Your task to perform on an android device: View the shopping cart on amazon.com. Add "acer predator" to the cart on amazon.com Image 0: 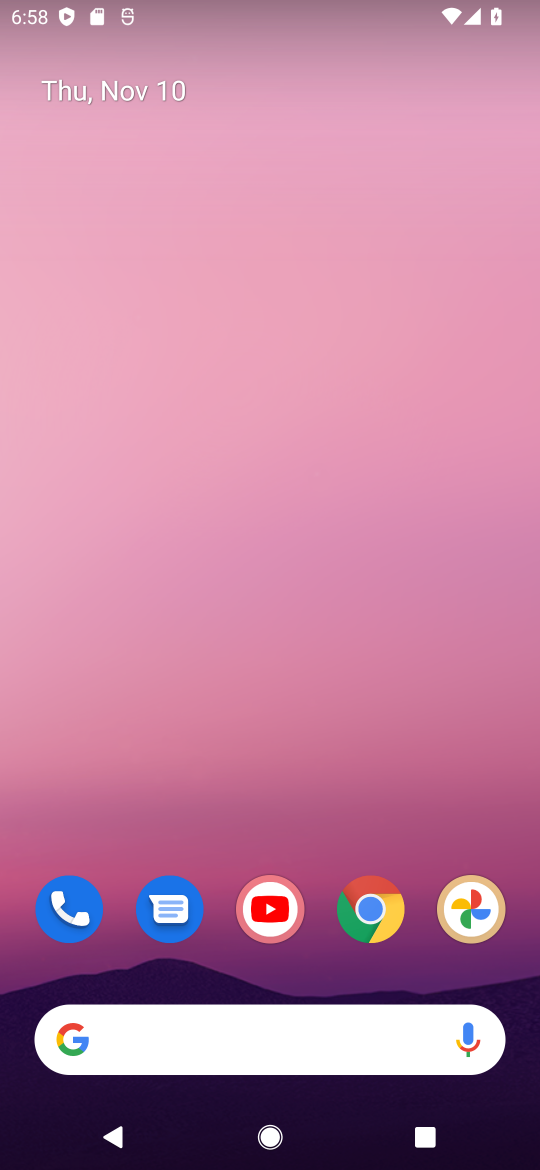
Step 0: drag from (310, 1037) to (353, 396)
Your task to perform on an android device: View the shopping cart on amazon.com. Add "acer predator" to the cart on amazon.com Image 1: 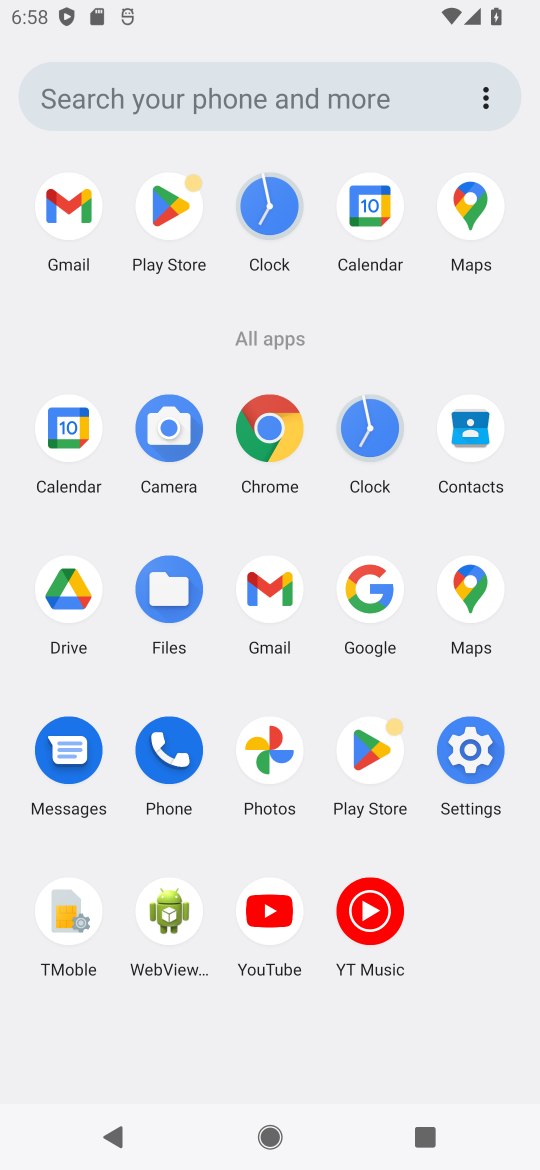
Step 1: click (357, 579)
Your task to perform on an android device: View the shopping cart on amazon.com. Add "acer predator" to the cart on amazon.com Image 2: 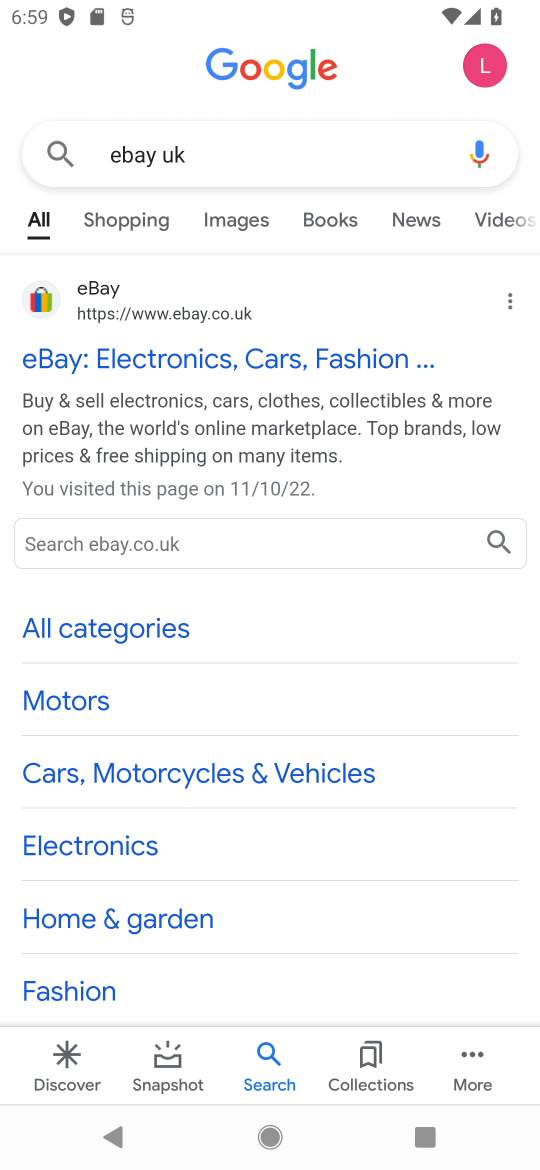
Step 2: click (211, 158)
Your task to perform on an android device: View the shopping cart on amazon.com. Add "acer predator" to the cart on amazon.com Image 3: 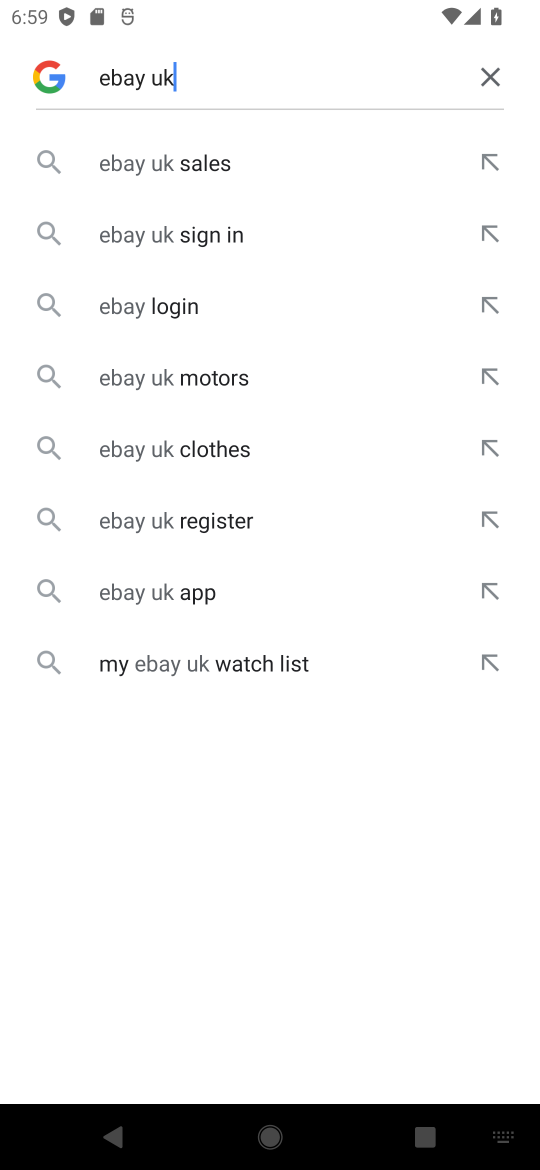
Step 3: click (492, 71)
Your task to perform on an android device: View the shopping cart on amazon.com. Add "acer predator" to the cart on amazon.com Image 4: 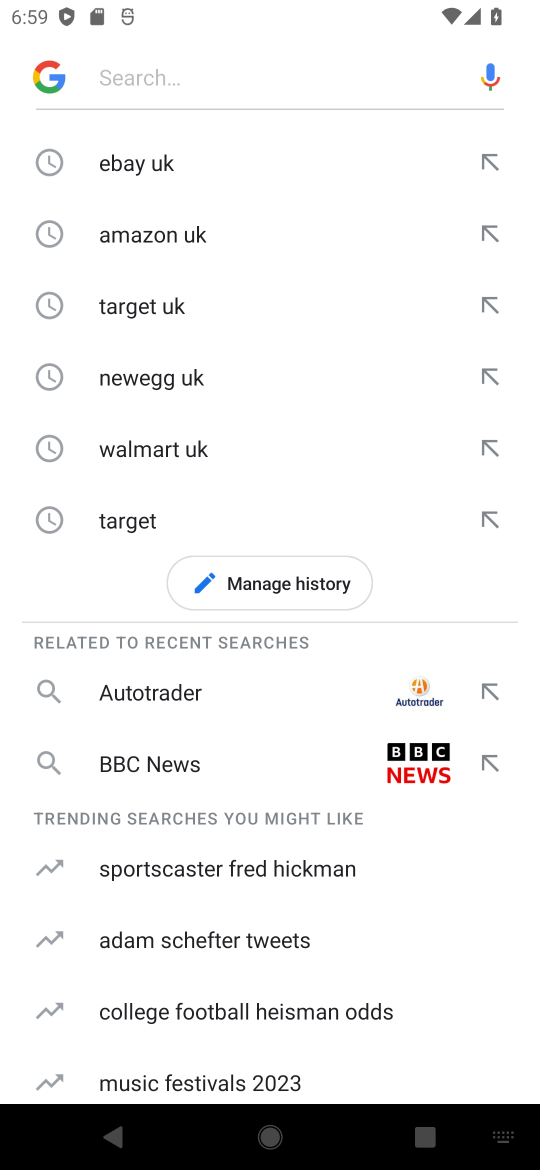
Step 4: click (162, 75)
Your task to perform on an android device: View the shopping cart on amazon.com. Add "acer predator" to the cart on amazon.com Image 5: 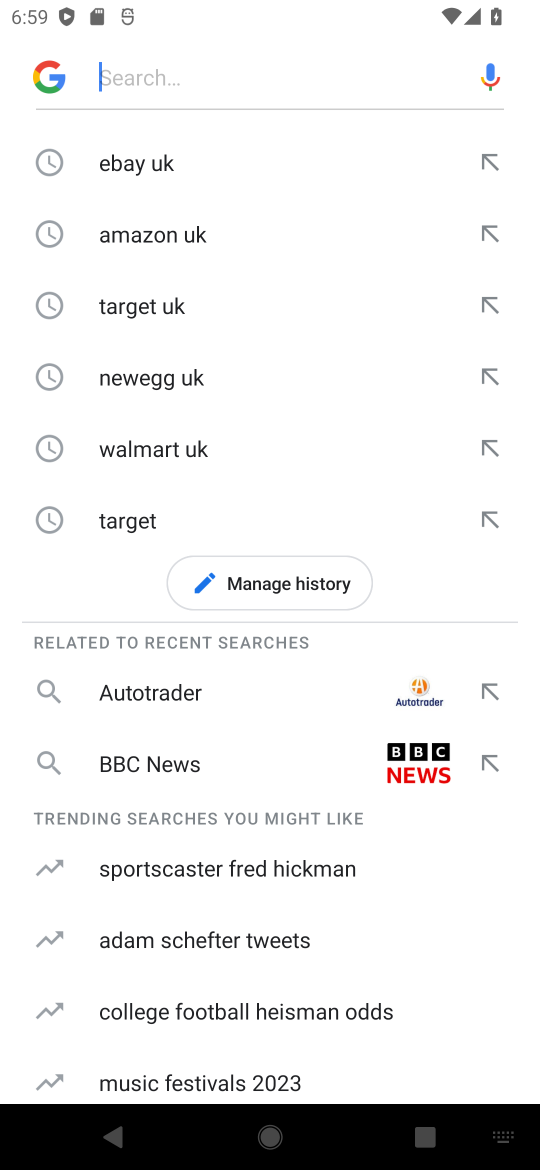
Step 5: type "amazon "
Your task to perform on an android device: View the shopping cart on amazon.com. Add "acer predator" to the cart on amazon.com Image 6: 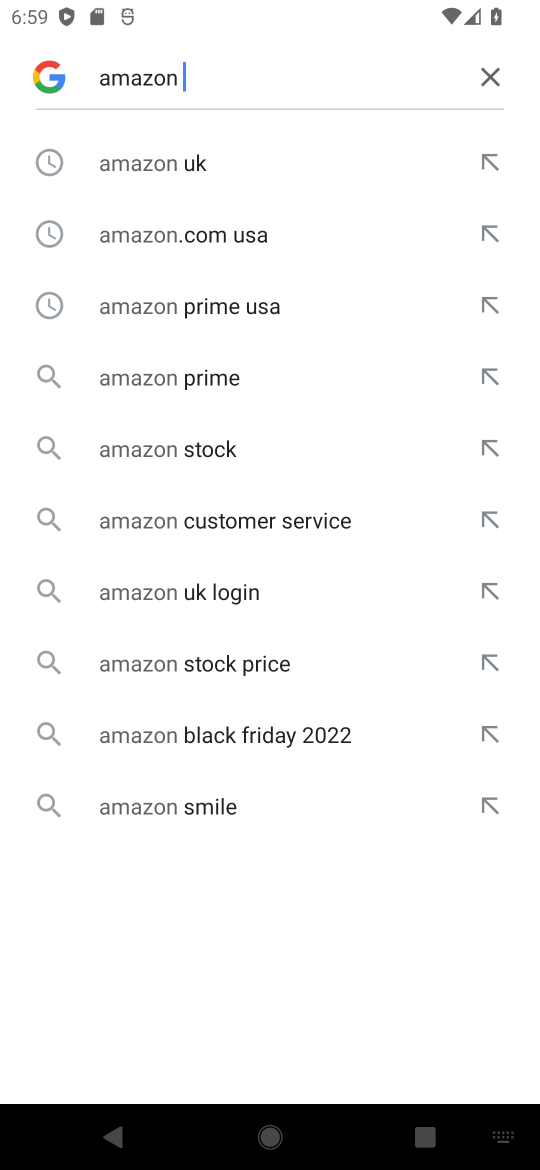
Step 6: click (188, 167)
Your task to perform on an android device: View the shopping cart on amazon.com. Add "acer predator" to the cart on amazon.com Image 7: 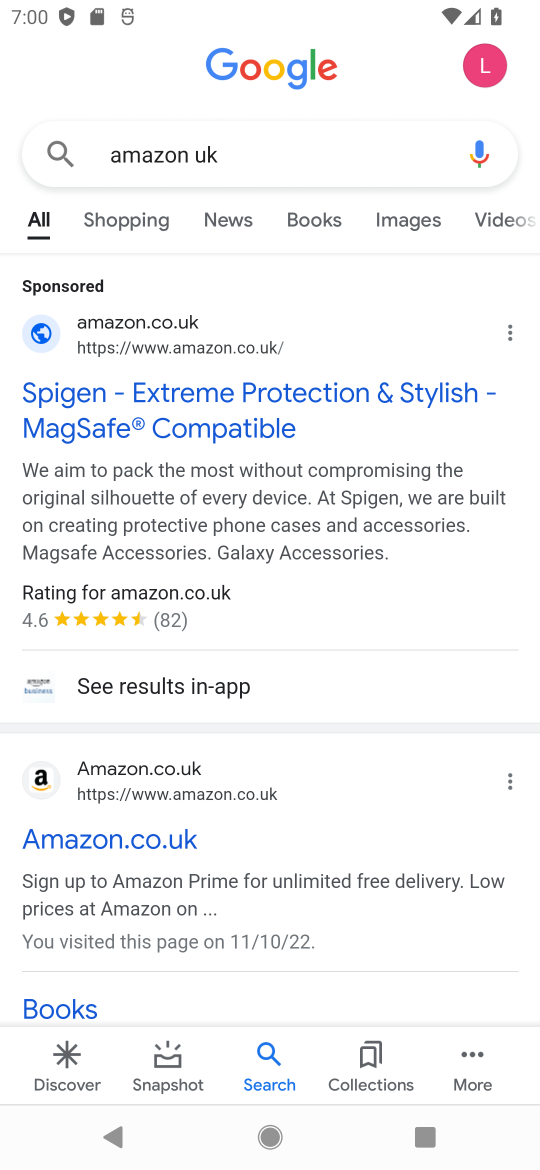
Step 7: click (43, 781)
Your task to perform on an android device: View the shopping cart on amazon.com. Add "acer predator" to the cart on amazon.com Image 8: 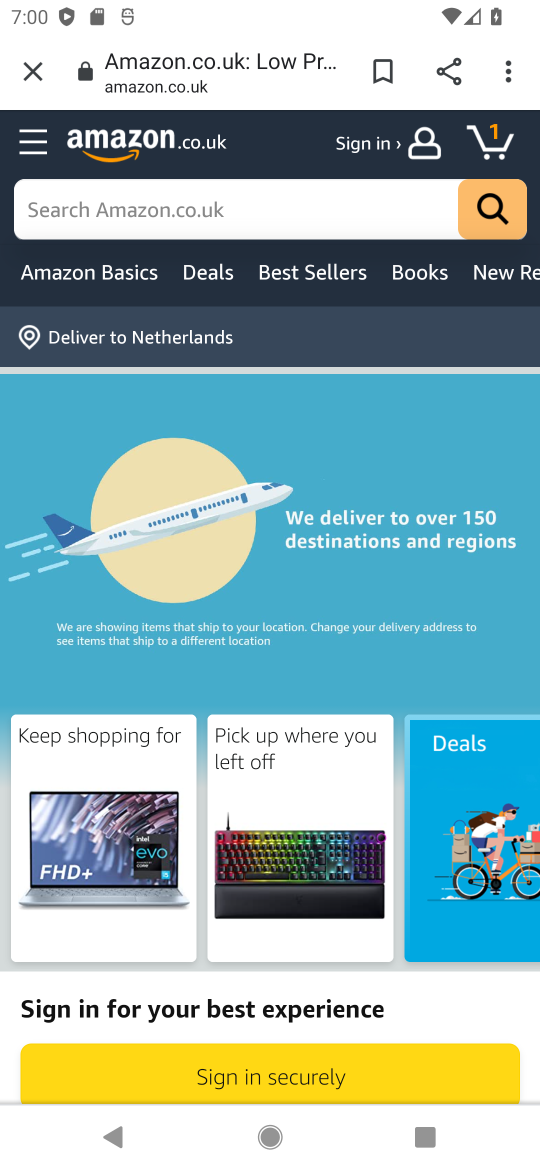
Step 8: click (238, 196)
Your task to perform on an android device: View the shopping cart on amazon.com. Add "acer predator" to the cart on amazon.com Image 9: 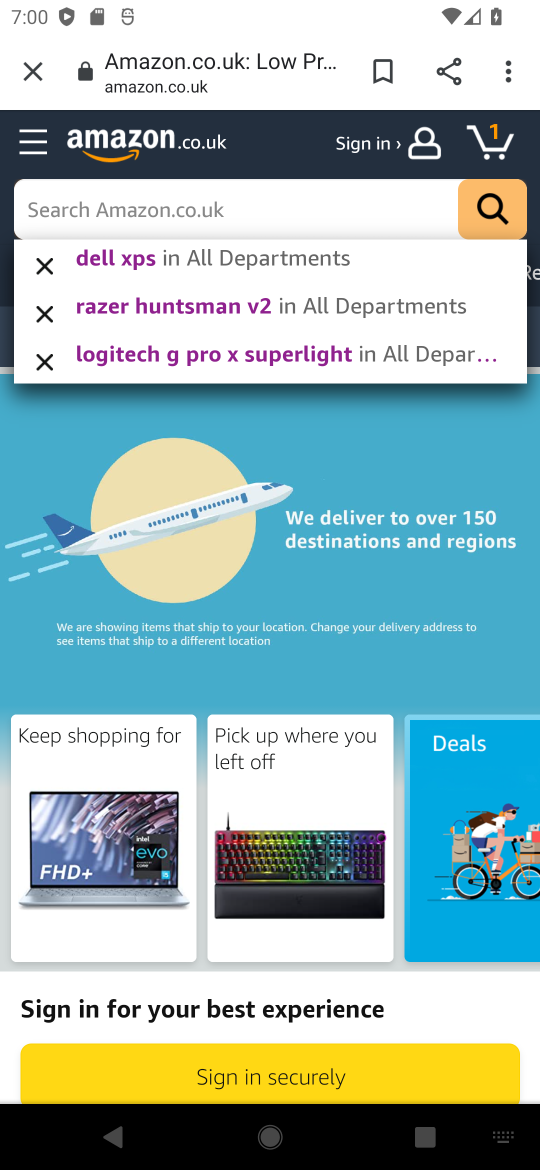
Step 9: type "acer predator" "
Your task to perform on an android device: View the shopping cart on amazon.com. Add "acer predator" to the cart on amazon.com Image 10: 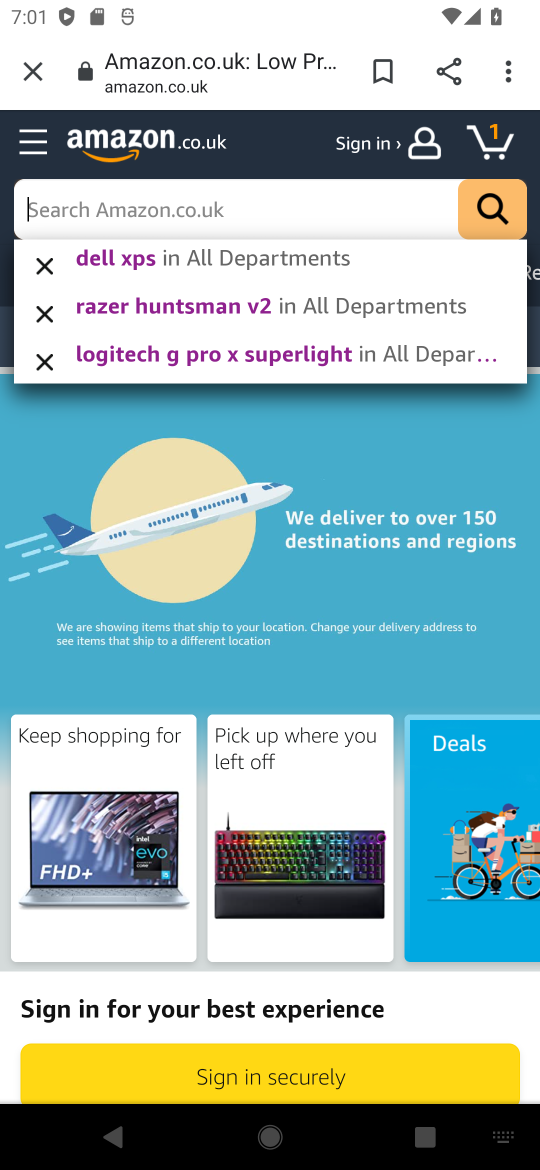
Step 10: click (216, 197)
Your task to perform on an android device: View the shopping cart on amazon.com. Add "acer predator" to the cart on amazon.com Image 11: 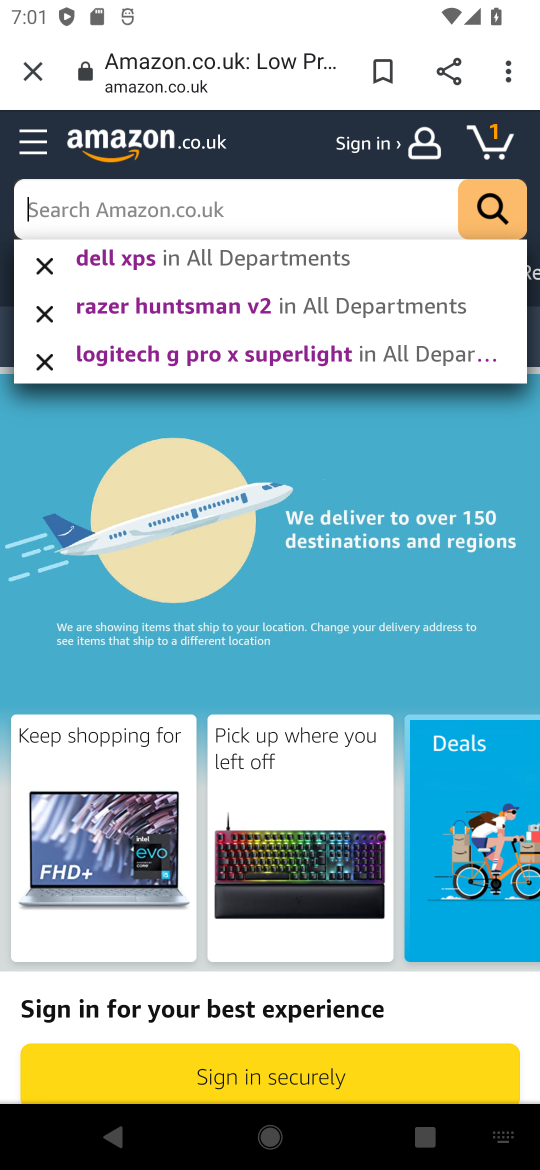
Step 11: type "predator "
Your task to perform on an android device: View the shopping cart on amazon.com. Add "acer predator" to the cart on amazon.com Image 12: 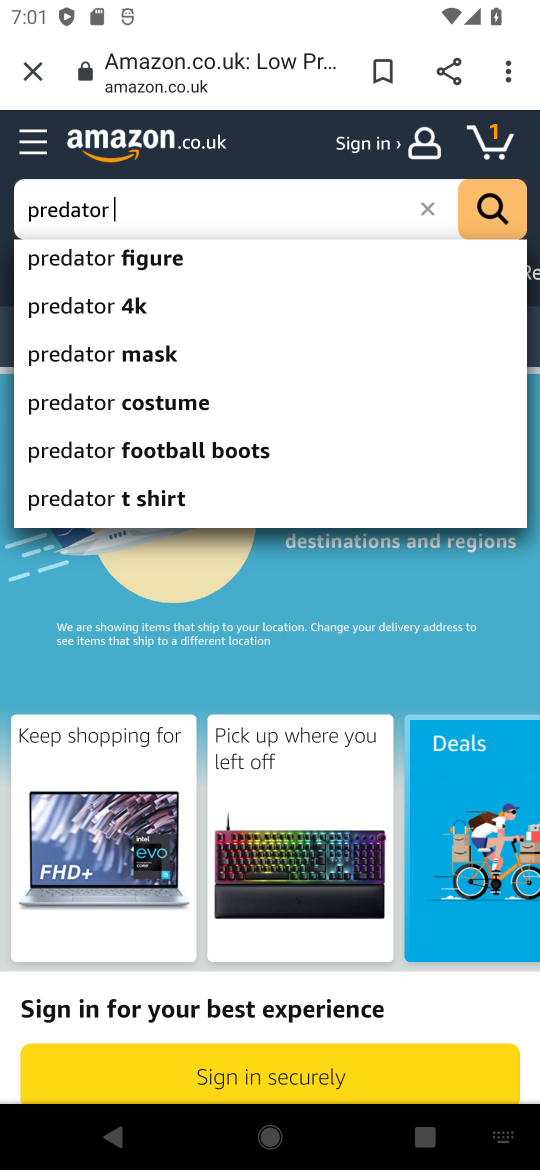
Step 12: click (475, 206)
Your task to perform on an android device: View the shopping cart on amazon.com. Add "acer predator" to the cart on amazon.com Image 13: 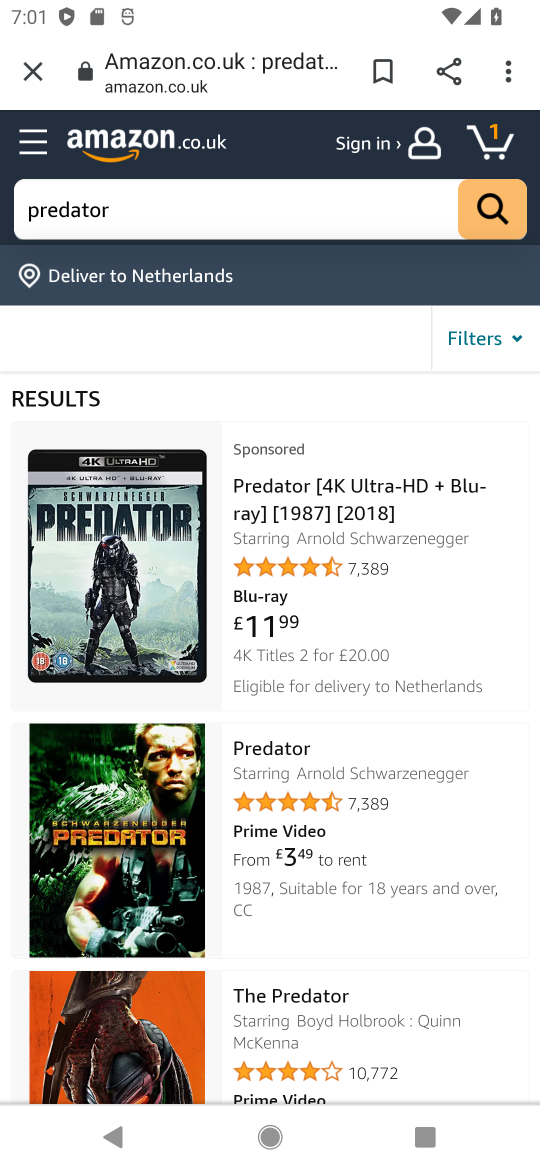
Step 13: click (342, 230)
Your task to perform on an android device: View the shopping cart on amazon.com. Add "acer predator" to the cart on amazon.com Image 14: 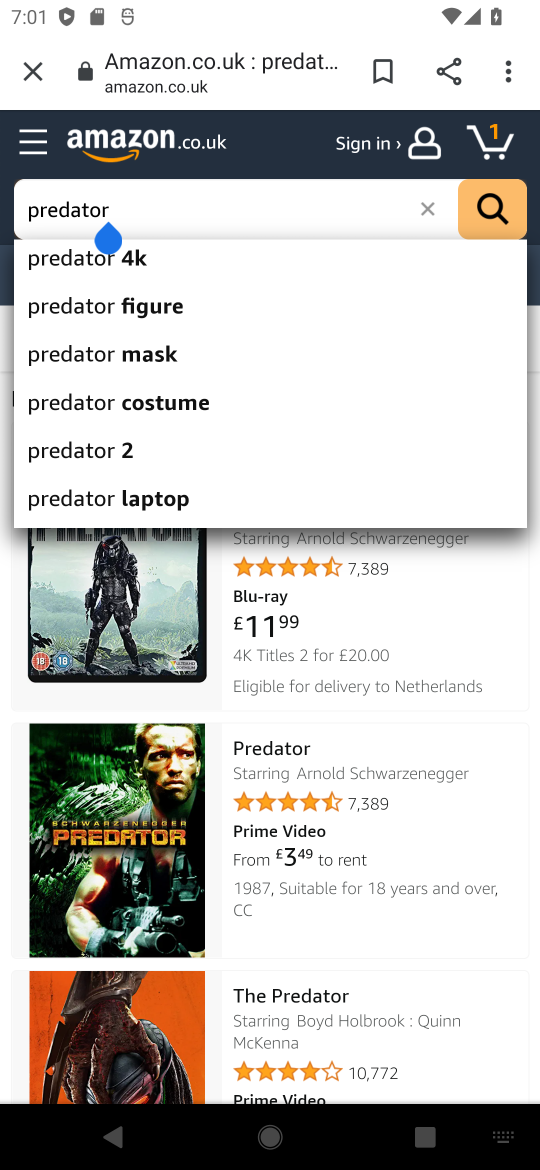
Step 14: click (420, 208)
Your task to perform on an android device: View the shopping cart on amazon.com. Add "acer predator" to the cart on amazon.com Image 15: 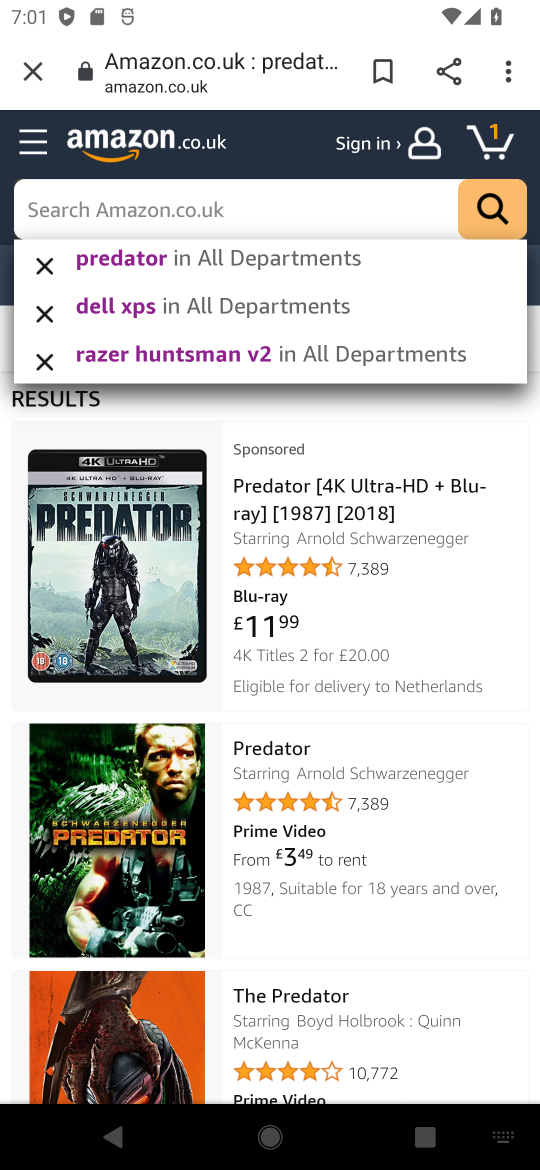
Step 15: click (204, 187)
Your task to perform on an android device: View the shopping cart on amazon.com. Add "acer predator" to the cart on amazon.com Image 16: 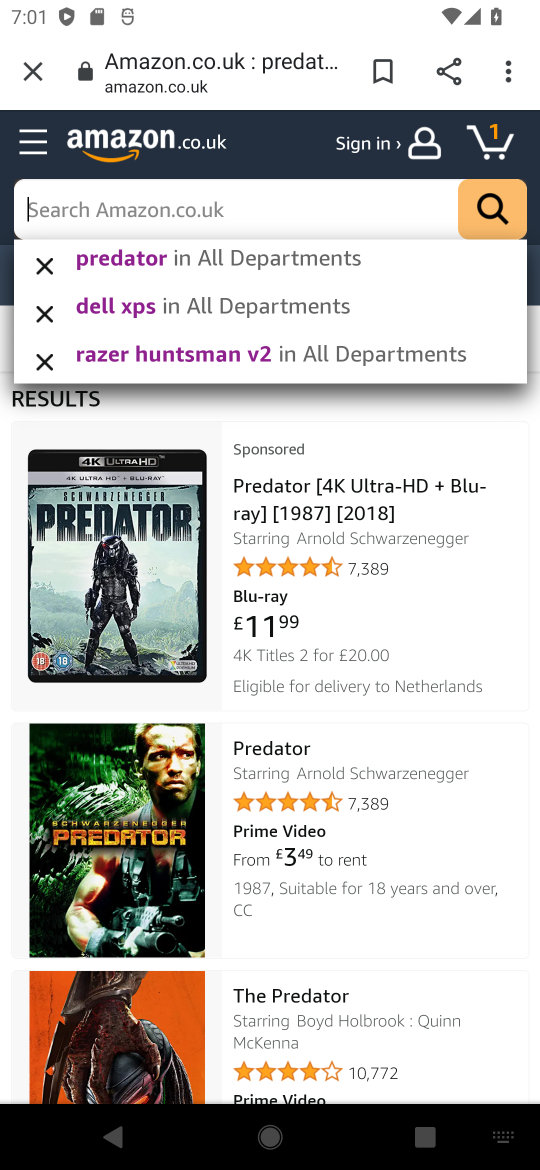
Step 16: type "acer "
Your task to perform on an android device: View the shopping cart on amazon.com. Add "acer predator" to the cart on amazon.com Image 17: 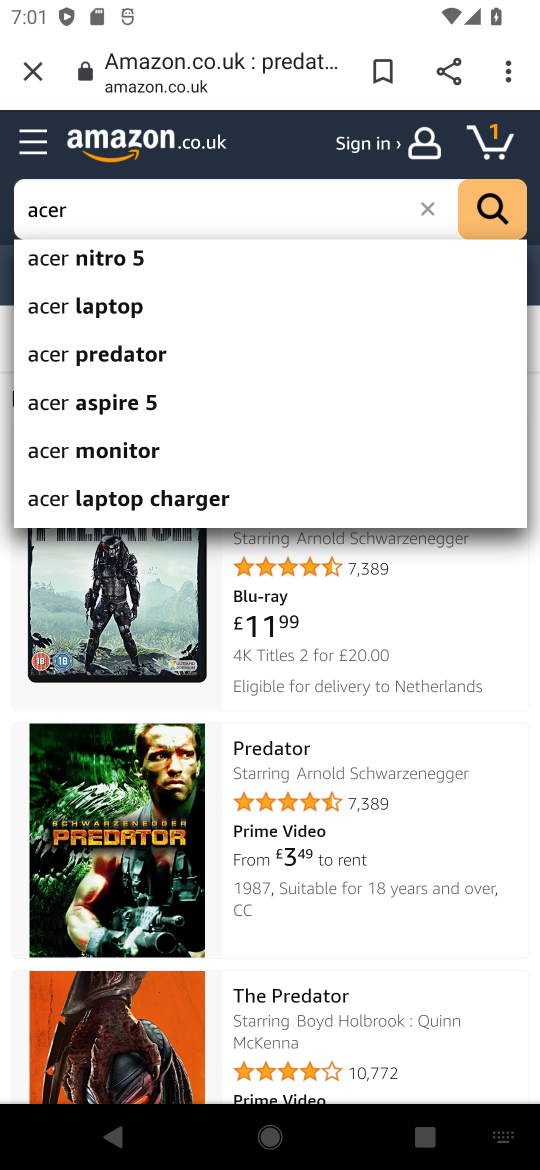
Step 17: click (127, 352)
Your task to perform on an android device: View the shopping cart on amazon.com. Add "acer predator" to the cart on amazon.com Image 18: 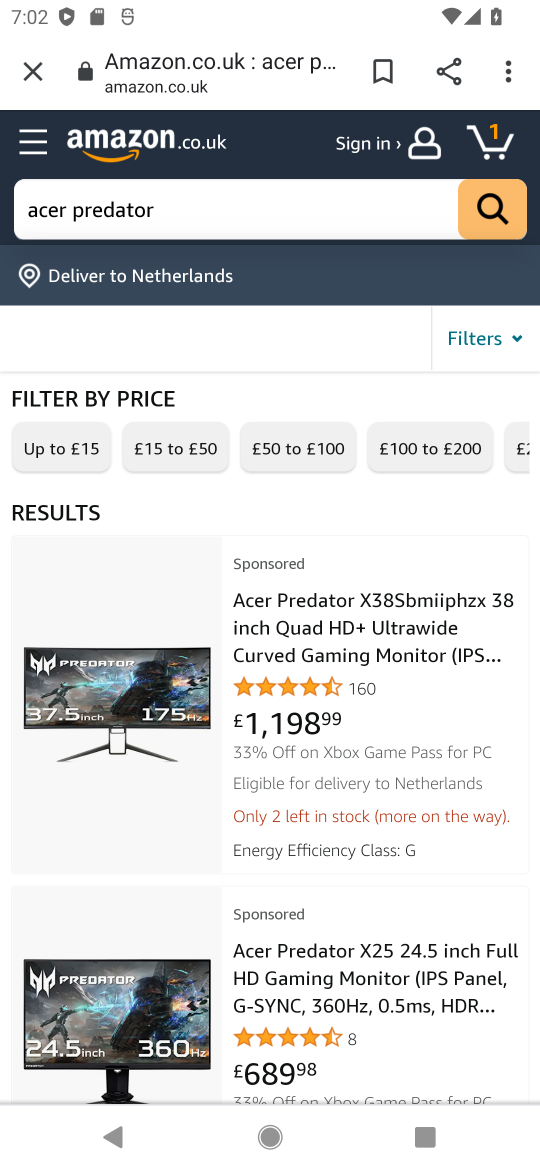
Step 18: click (310, 613)
Your task to perform on an android device: View the shopping cart on amazon.com. Add "acer predator" to the cart on amazon.com Image 19: 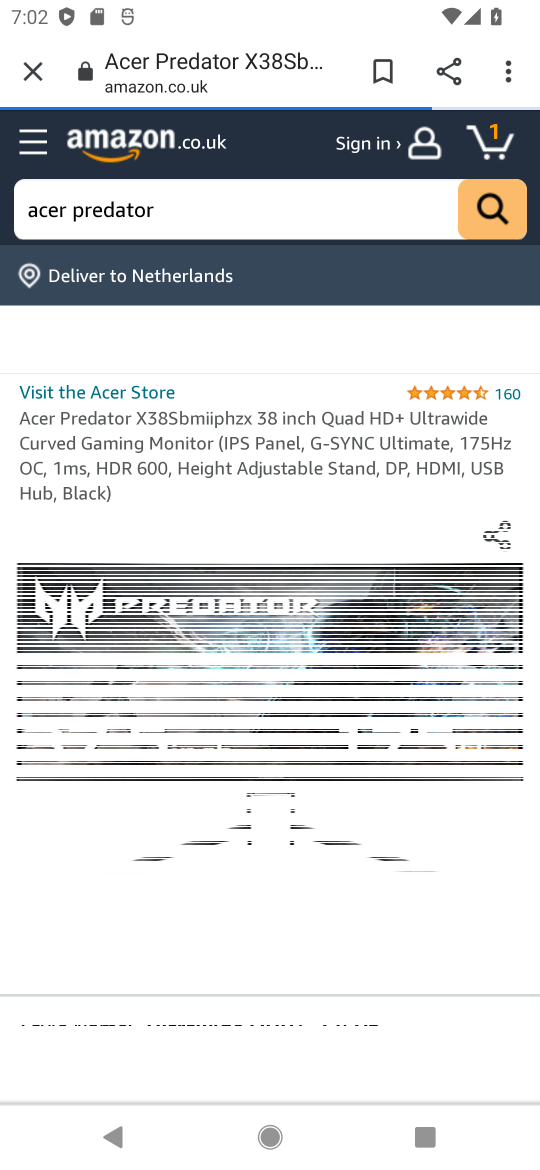
Step 19: drag from (298, 918) to (310, 280)
Your task to perform on an android device: View the shopping cart on amazon.com. Add "acer predator" to the cart on amazon.com Image 20: 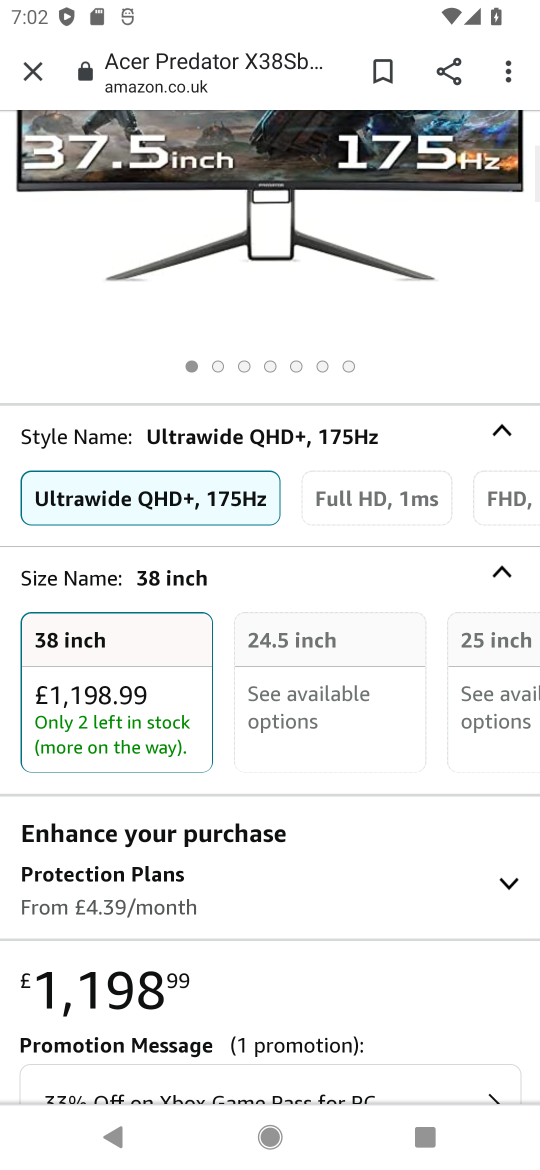
Step 20: drag from (273, 988) to (313, 473)
Your task to perform on an android device: View the shopping cart on amazon.com. Add "acer predator" to the cart on amazon.com Image 21: 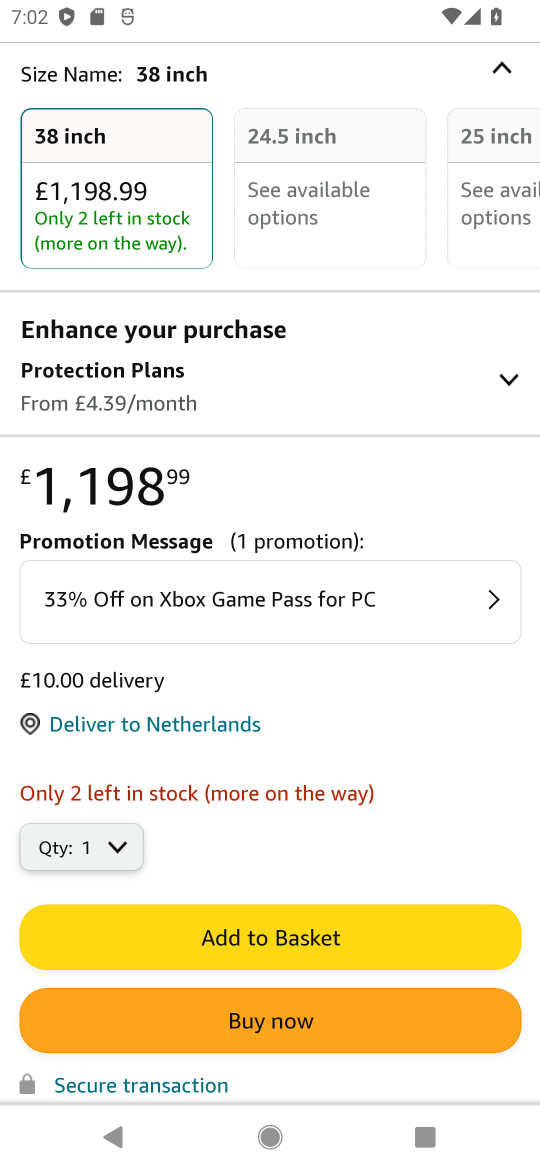
Step 21: click (265, 940)
Your task to perform on an android device: View the shopping cart on amazon.com. Add "acer predator" to the cart on amazon.com Image 22: 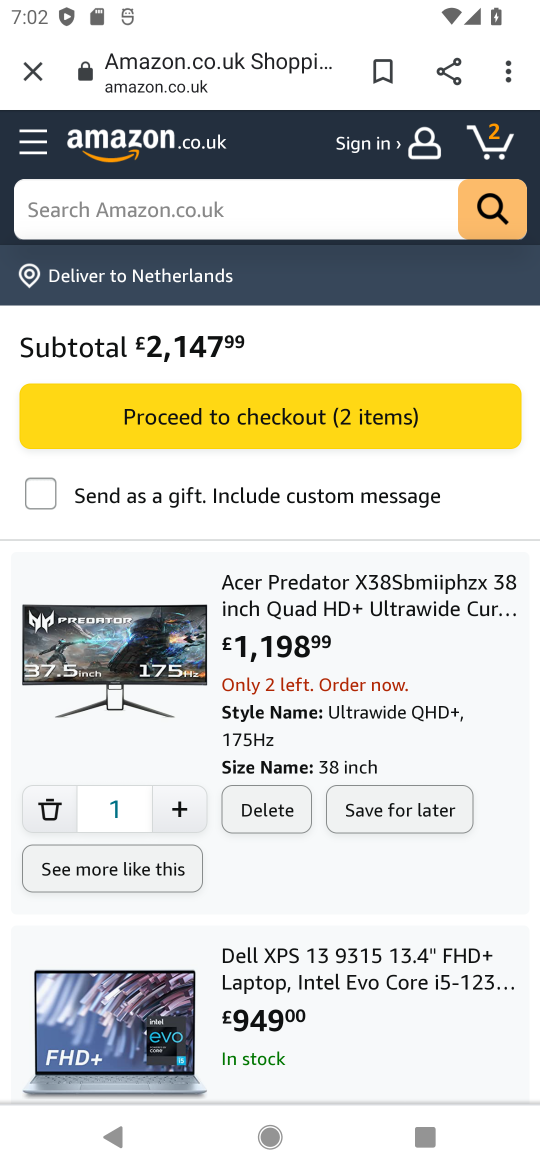
Step 22: task complete